Your task to perform on an android device: delete the emails in spam in the gmail app Image 0: 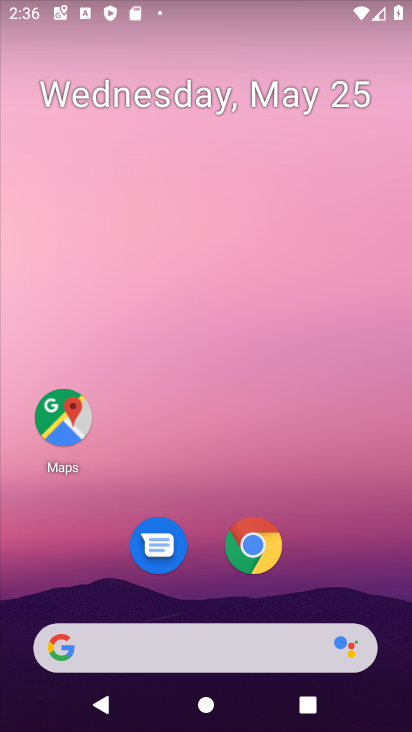
Step 0: drag from (360, 562) to (300, 10)
Your task to perform on an android device: delete the emails in spam in the gmail app Image 1: 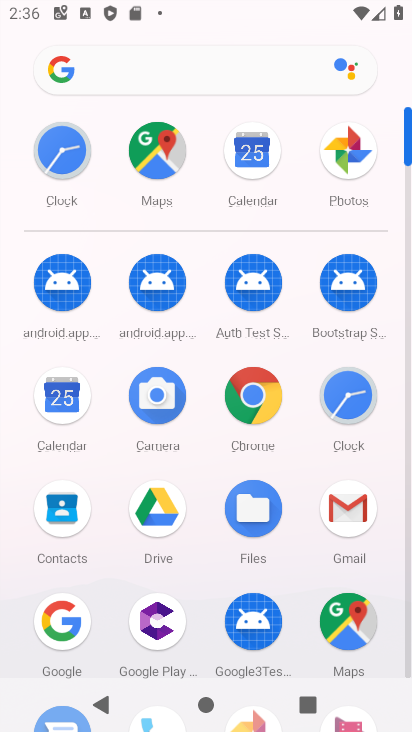
Step 1: click (351, 540)
Your task to perform on an android device: delete the emails in spam in the gmail app Image 2: 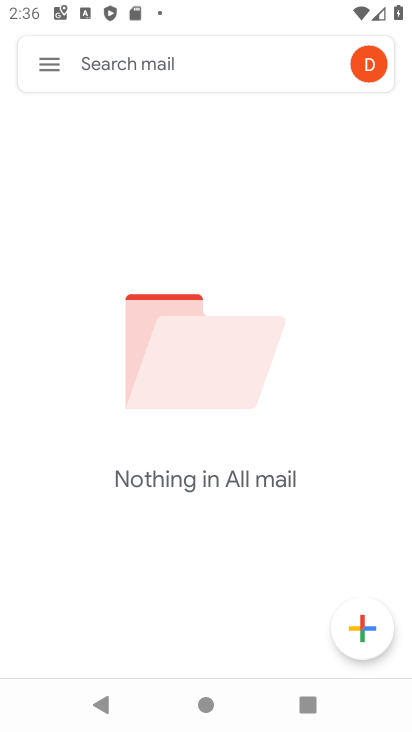
Step 2: click (48, 62)
Your task to perform on an android device: delete the emails in spam in the gmail app Image 3: 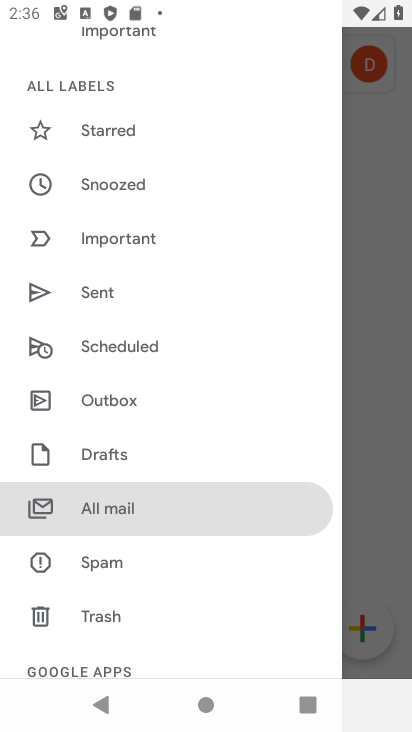
Step 3: click (148, 556)
Your task to perform on an android device: delete the emails in spam in the gmail app Image 4: 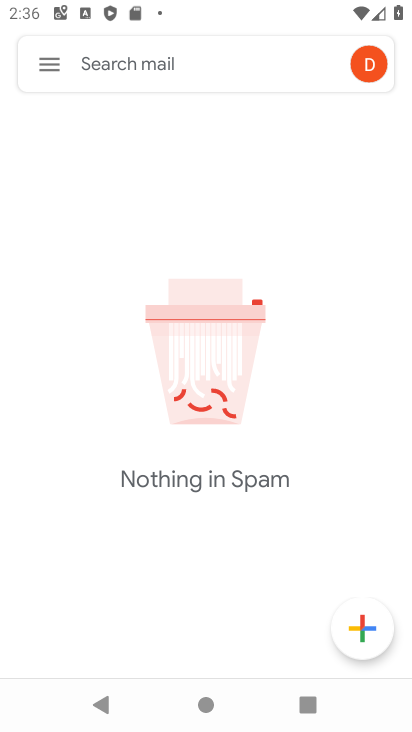
Step 4: task complete